Your task to perform on an android device: Show me popular games on the Play Store Image 0: 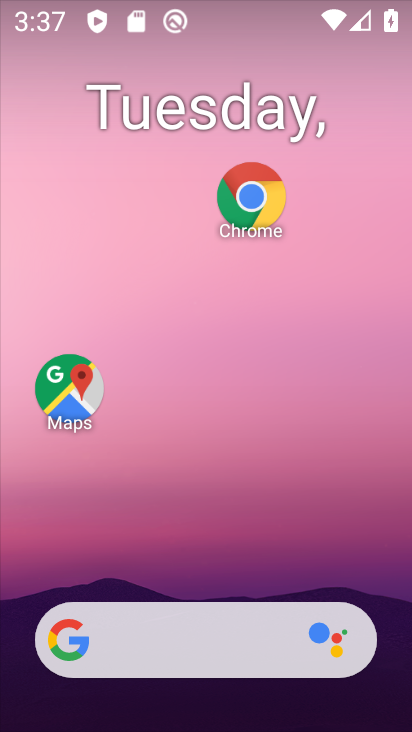
Step 0: drag from (206, 489) to (206, 228)
Your task to perform on an android device: Show me popular games on the Play Store Image 1: 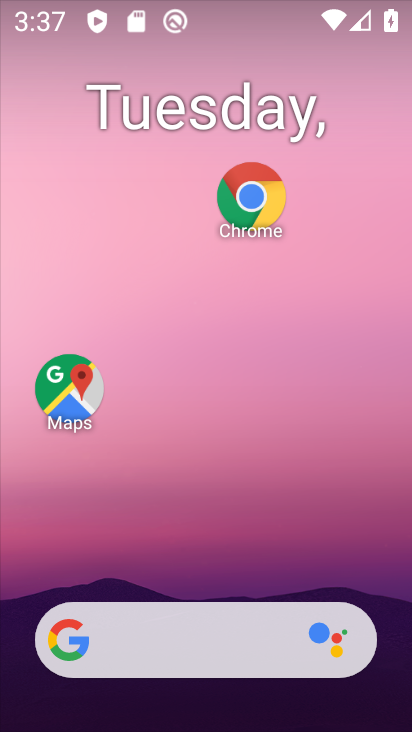
Step 1: drag from (237, 598) to (217, 213)
Your task to perform on an android device: Show me popular games on the Play Store Image 2: 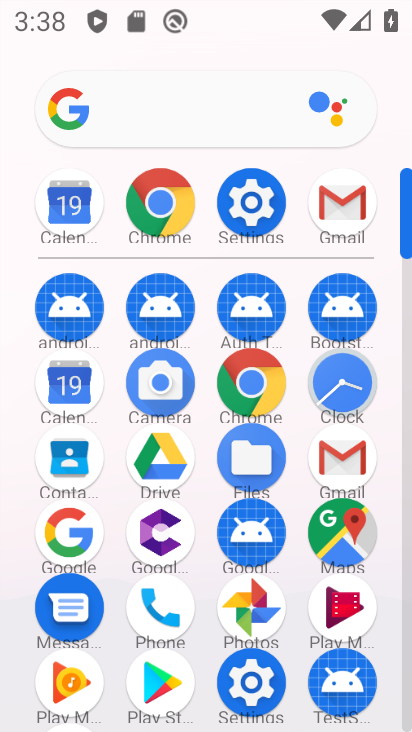
Step 2: click (171, 683)
Your task to perform on an android device: Show me popular games on the Play Store Image 3: 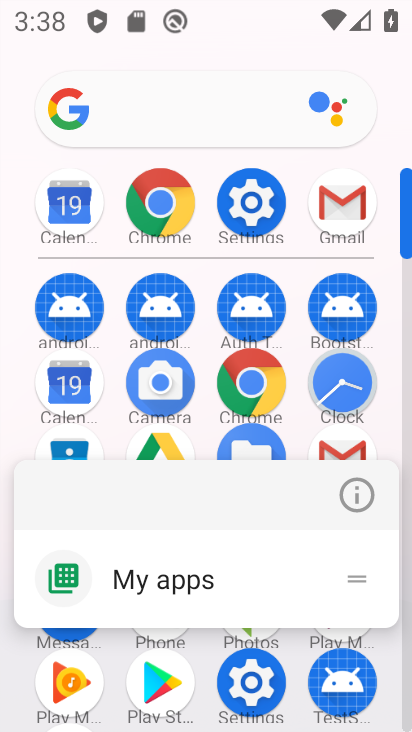
Step 3: click (161, 675)
Your task to perform on an android device: Show me popular games on the Play Store Image 4: 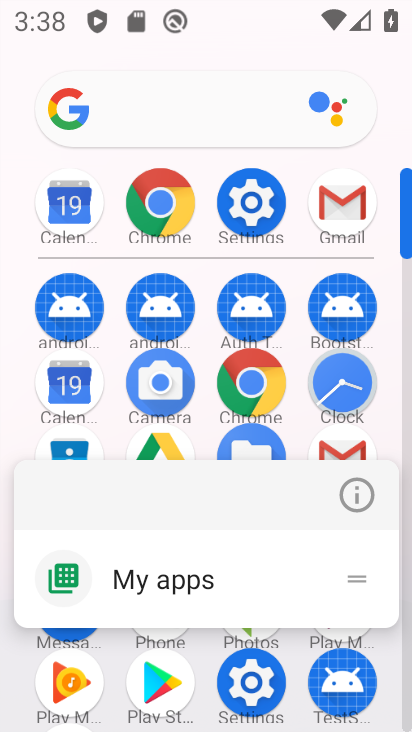
Step 4: click (162, 682)
Your task to perform on an android device: Show me popular games on the Play Store Image 5: 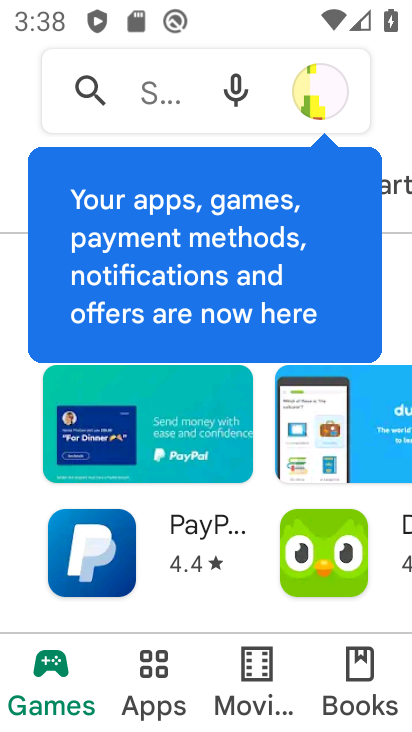
Step 5: click (150, 85)
Your task to perform on an android device: Show me popular games on the Play Store Image 6: 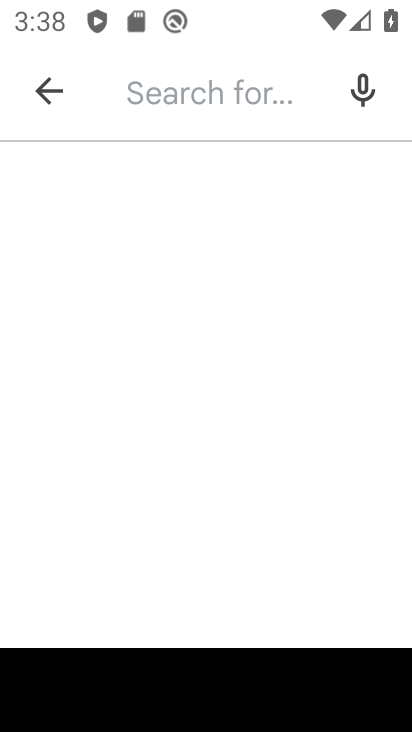
Step 6: type "popular games"
Your task to perform on an android device: Show me popular games on the Play Store Image 7: 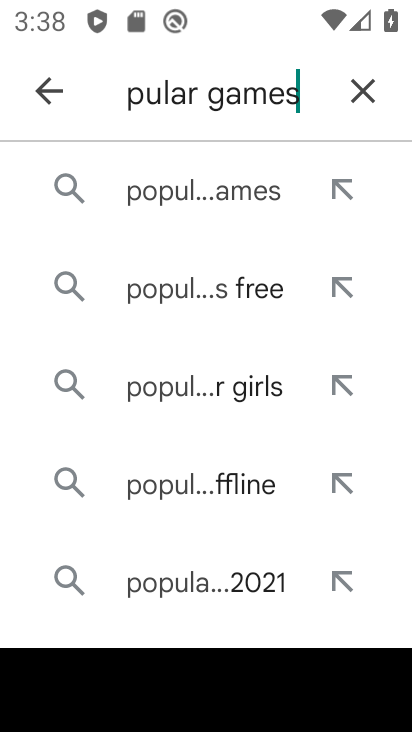
Step 7: click (227, 184)
Your task to perform on an android device: Show me popular games on the Play Store Image 8: 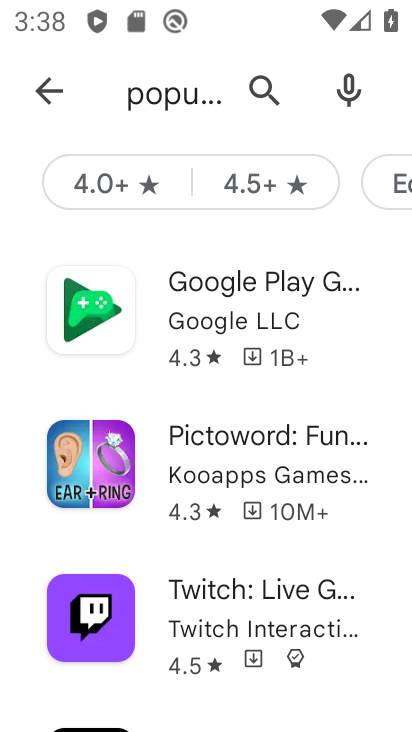
Step 8: task complete